Your task to perform on an android device: Open display settings Image 0: 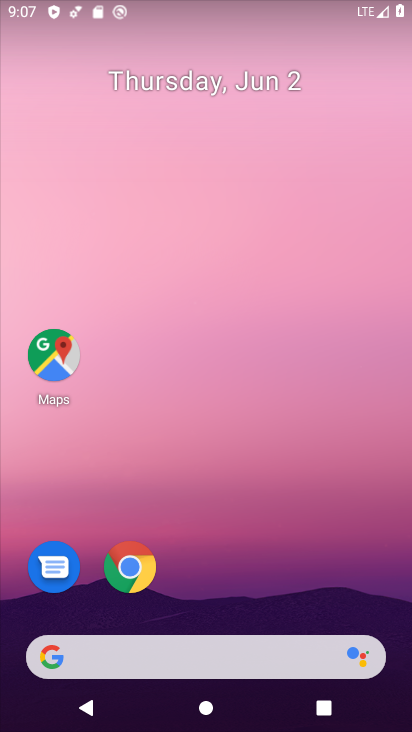
Step 0: drag from (307, 445) to (307, 154)
Your task to perform on an android device: Open display settings Image 1: 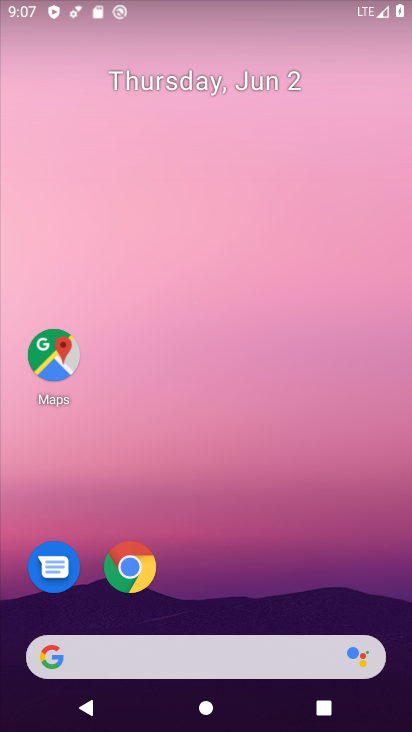
Step 1: drag from (316, 511) to (291, 111)
Your task to perform on an android device: Open display settings Image 2: 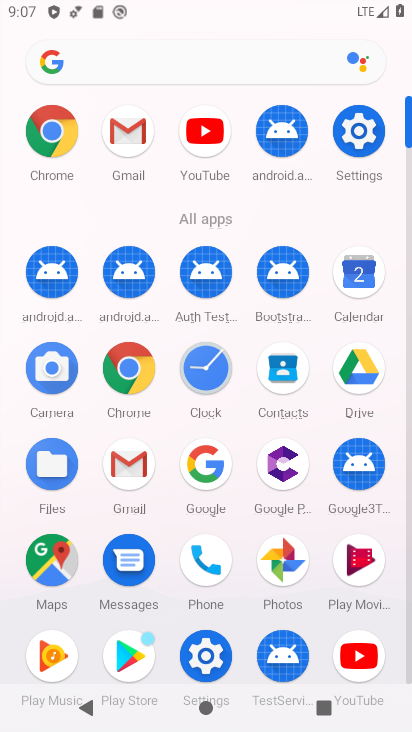
Step 2: click (352, 135)
Your task to perform on an android device: Open display settings Image 3: 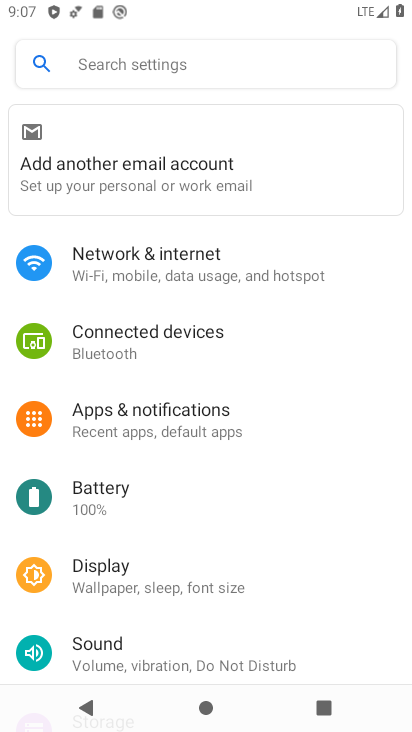
Step 3: click (216, 582)
Your task to perform on an android device: Open display settings Image 4: 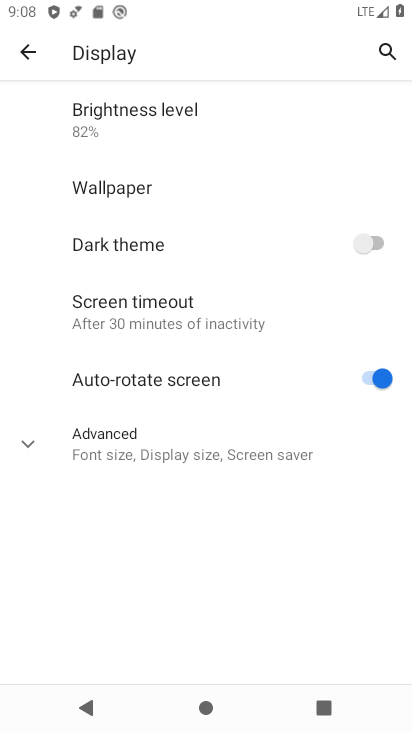
Step 4: task complete